Your task to perform on an android device: check out phone information Image 0: 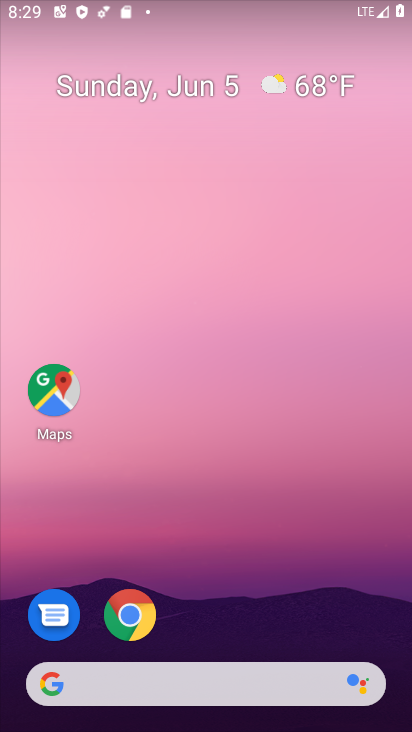
Step 0: drag from (197, 680) to (121, 3)
Your task to perform on an android device: check out phone information Image 1: 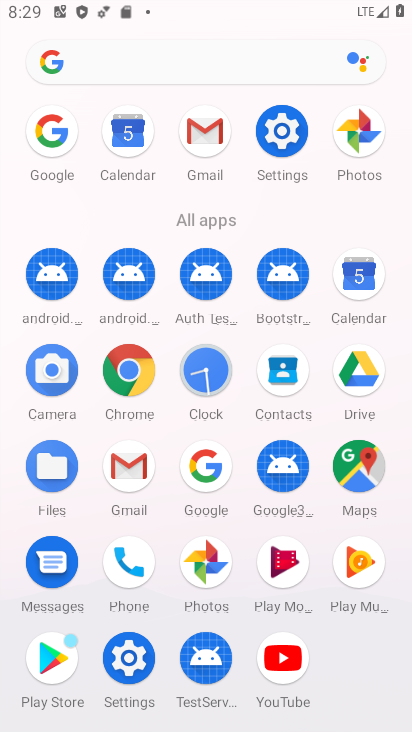
Step 1: click (284, 128)
Your task to perform on an android device: check out phone information Image 2: 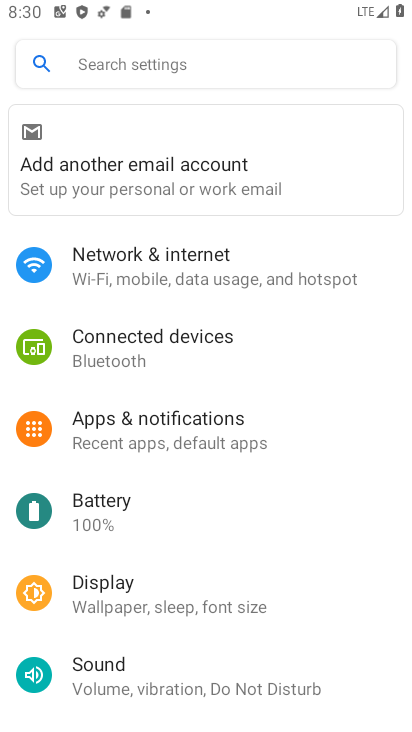
Step 2: drag from (69, 507) to (93, 0)
Your task to perform on an android device: check out phone information Image 3: 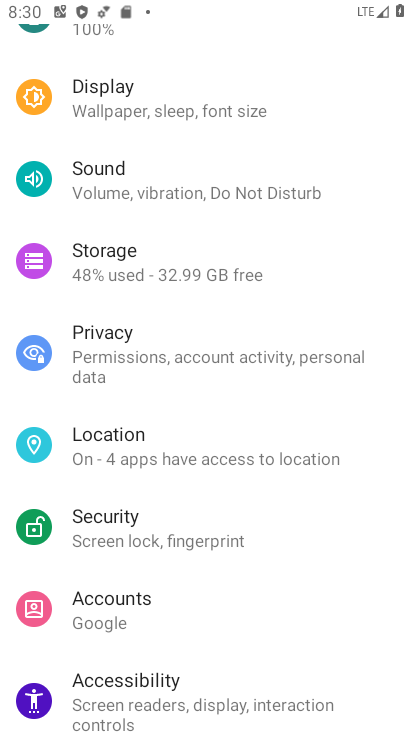
Step 3: drag from (117, 550) to (176, 76)
Your task to perform on an android device: check out phone information Image 4: 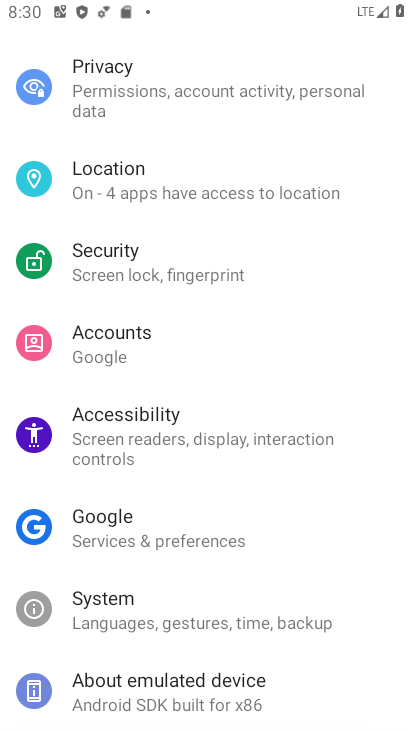
Step 4: click (205, 699)
Your task to perform on an android device: check out phone information Image 5: 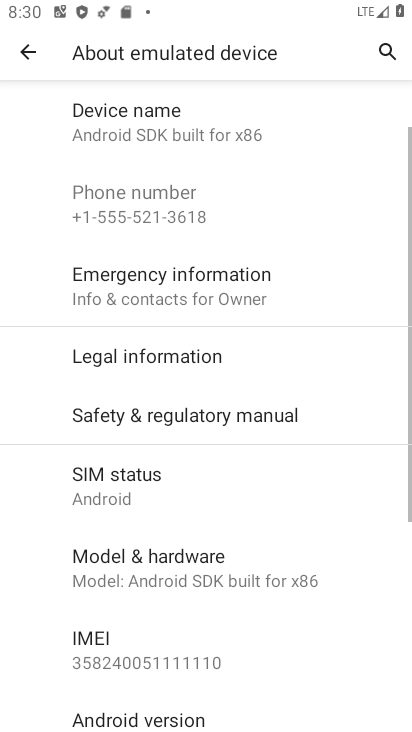
Step 5: task complete